Your task to perform on an android device: turn off improve location accuracy Image 0: 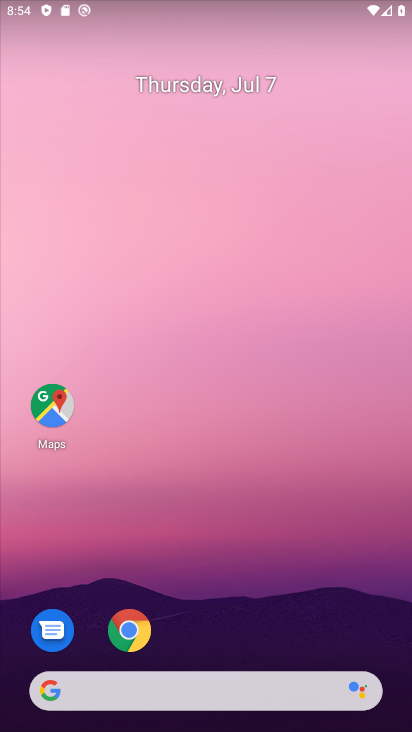
Step 0: drag from (184, 647) to (193, 168)
Your task to perform on an android device: turn off improve location accuracy Image 1: 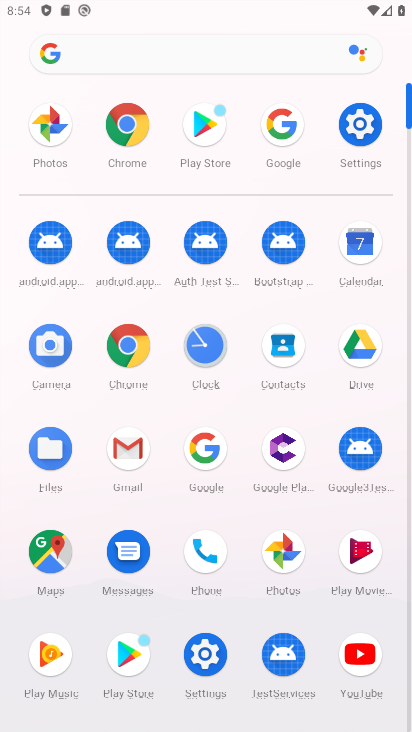
Step 1: click (379, 129)
Your task to perform on an android device: turn off improve location accuracy Image 2: 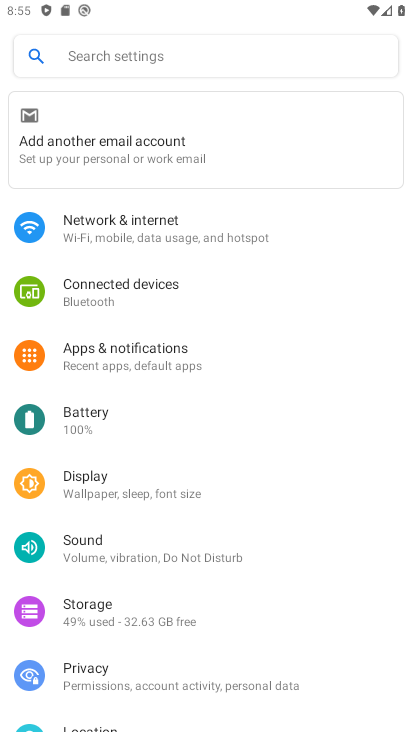
Step 2: drag from (175, 658) to (186, 363)
Your task to perform on an android device: turn off improve location accuracy Image 3: 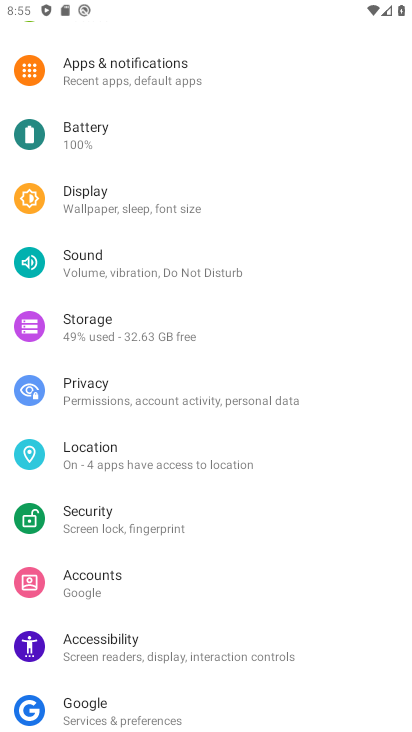
Step 3: click (159, 467)
Your task to perform on an android device: turn off improve location accuracy Image 4: 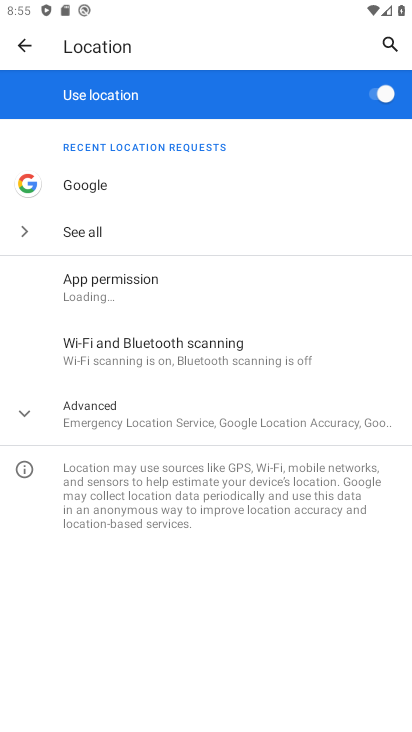
Step 4: click (141, 410)
Your task to perform on an android device: turn off improve location accuracy Image 5: 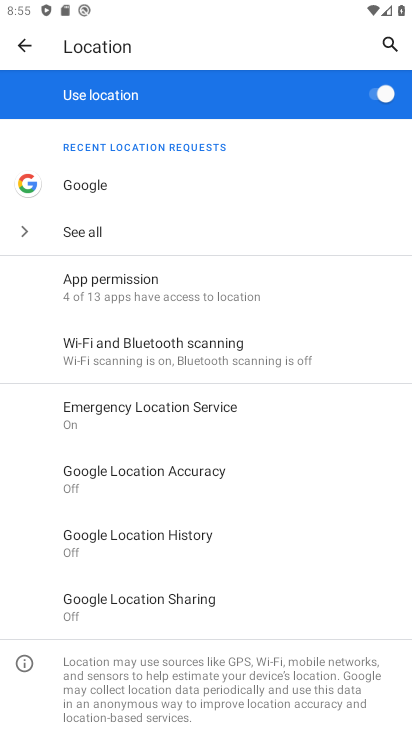
Step 5: click (207, 485)
Your task to perform on an android device: turn off improve location accuracy Image 6: 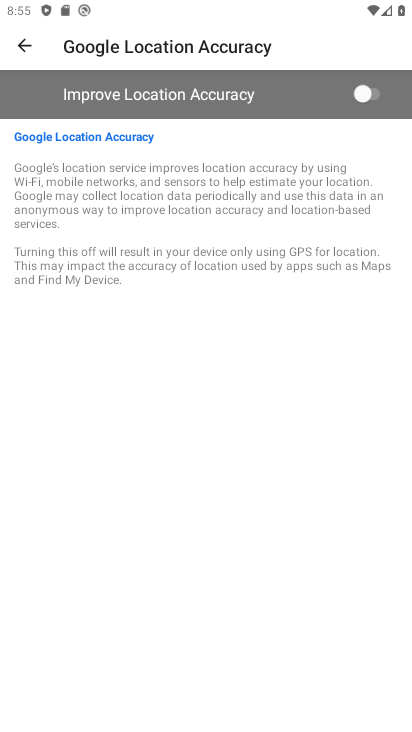
Step 6: task complete